Your task to perform on an android device: When is my next meeting? Image 0: 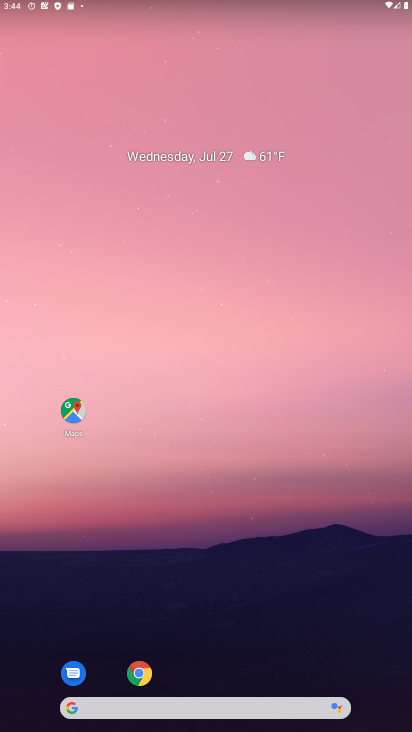
Step 0: drag from (42, 700) to (268, 18)
Your task to perform on an android device: When is my next meeting? Image 1: 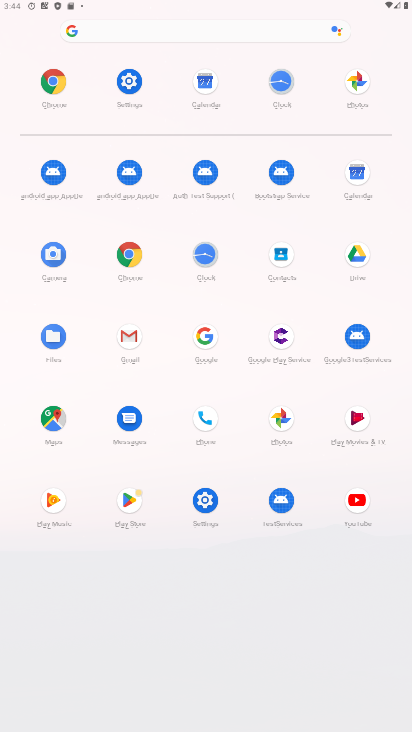
Step 1: click (364, 175)
Your task to perform on an android device: When is my next meeting? Image 2: 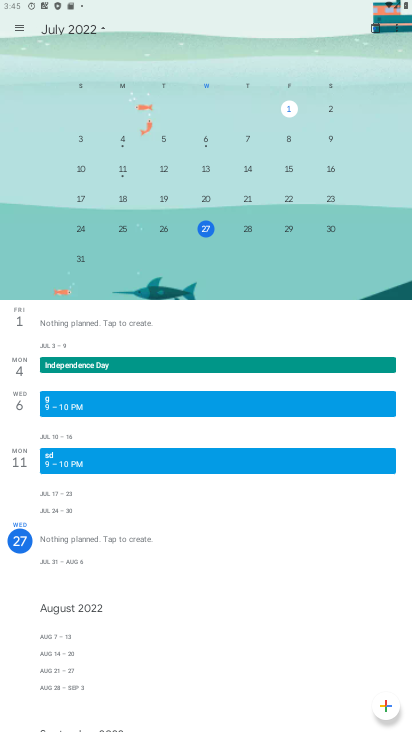
Step 2: task complete